Your task to perform on an android device: Is it going to rain tomorrow? Image 0: 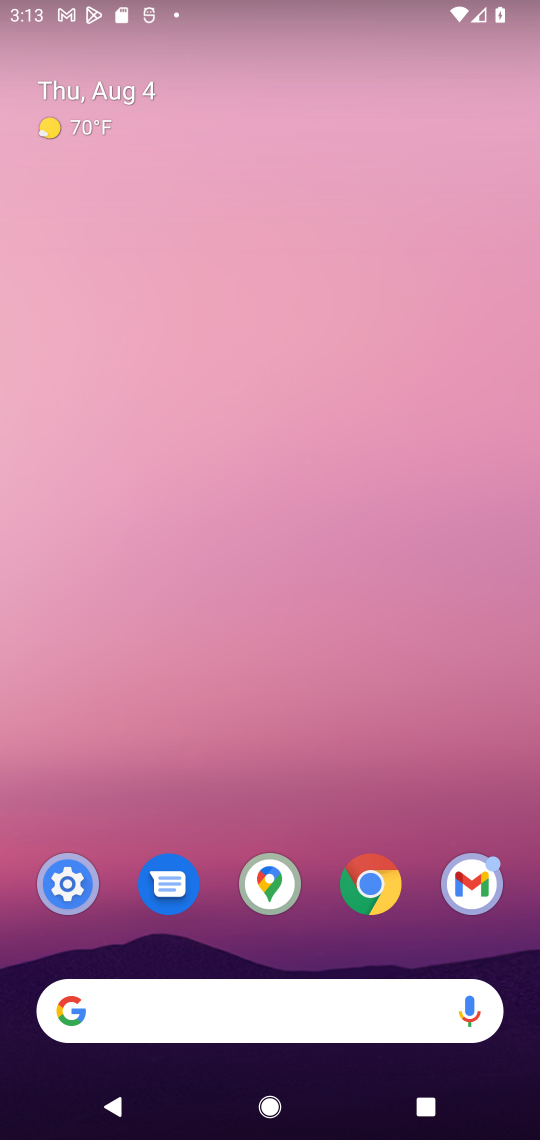
Step 0: click (296, 962)
Your task to perform on an android device: Is it going to rain tomorrow? Image 1: 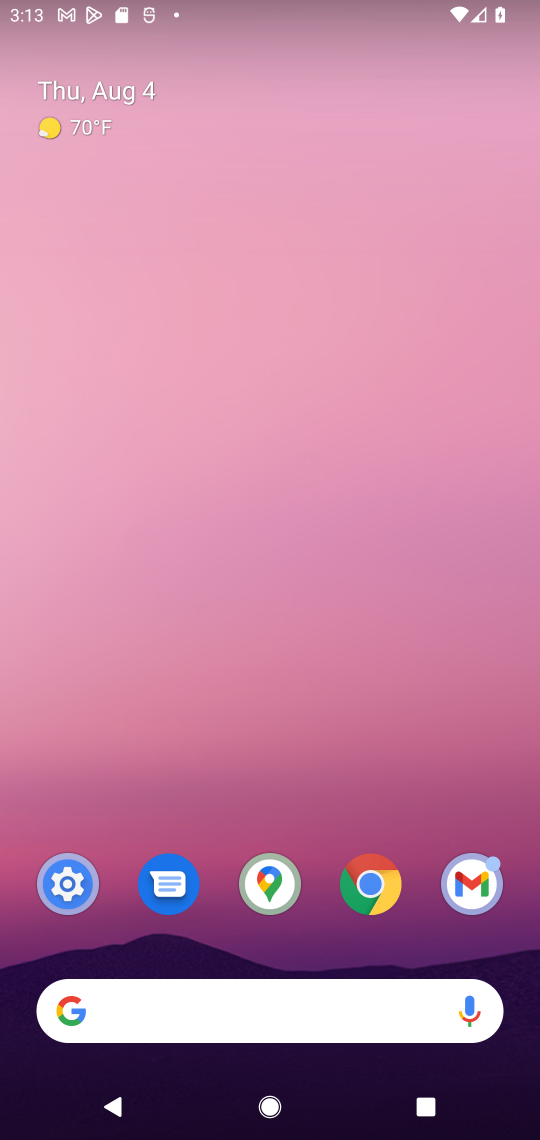
Step 1: click (260, 1018)
Your task to perform on an android device: Is it going to rain tomorrow? Image 2: 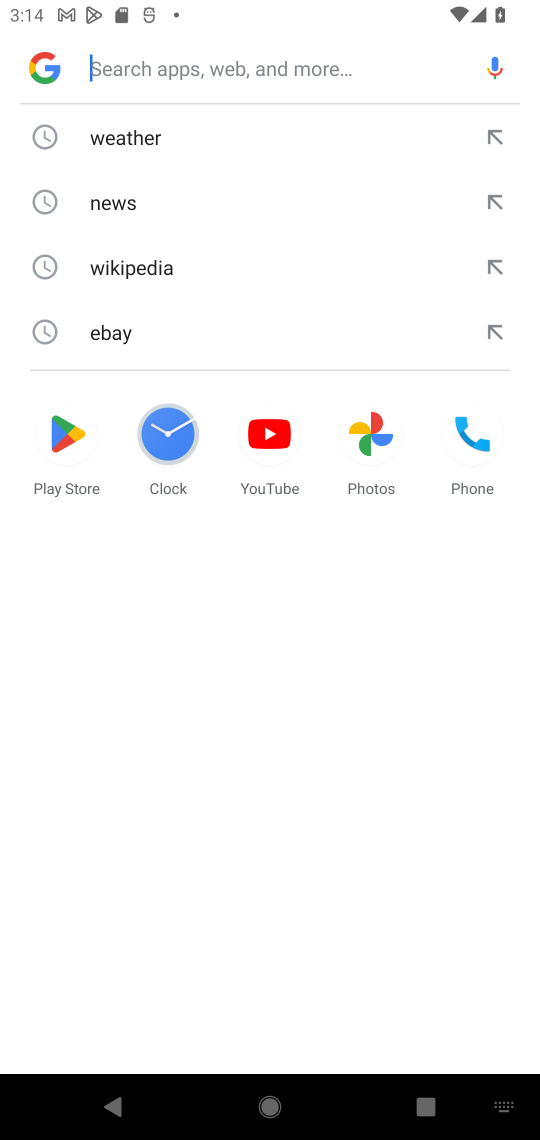
Step 2: click (135, 153)
Your task to perform on an android device: Is it going to rain tomorrow? Image 3: 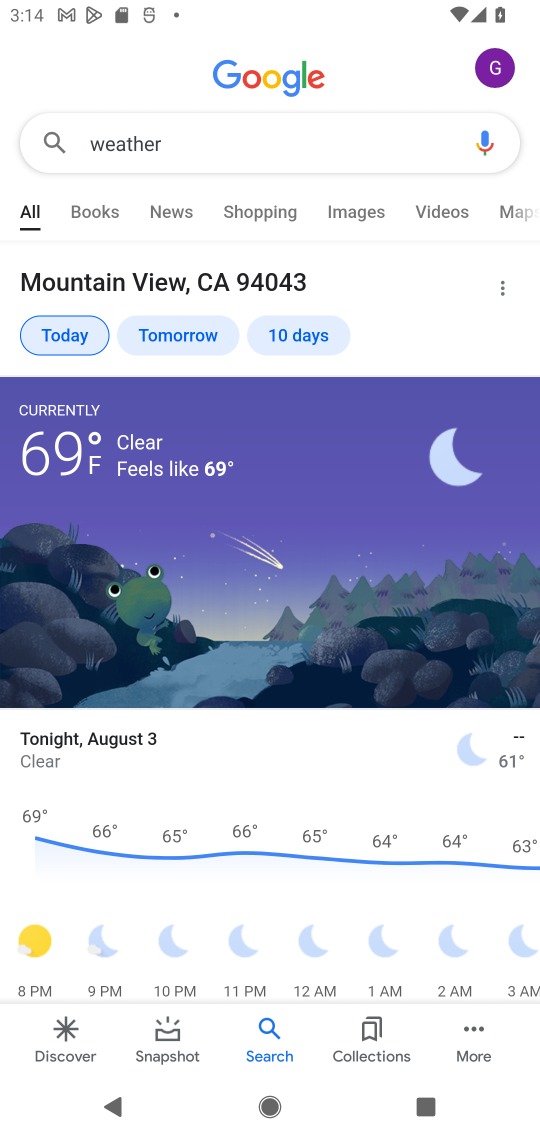
Step 3: task complete